Your task to perform on an android device: check storage Image 0: 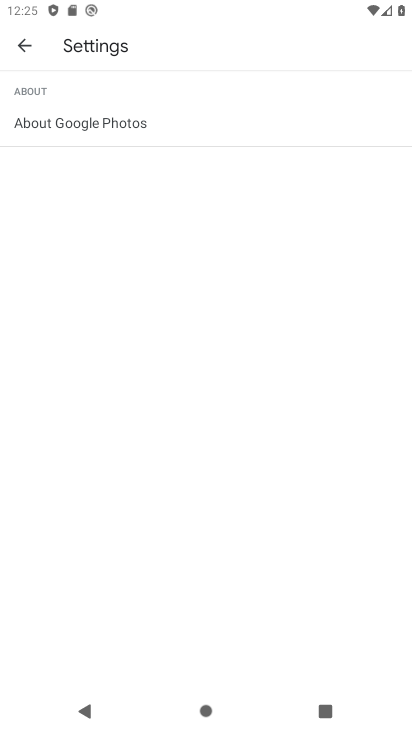
Step 0: press home button
Your task to perform on an android device: check storage Image 1: 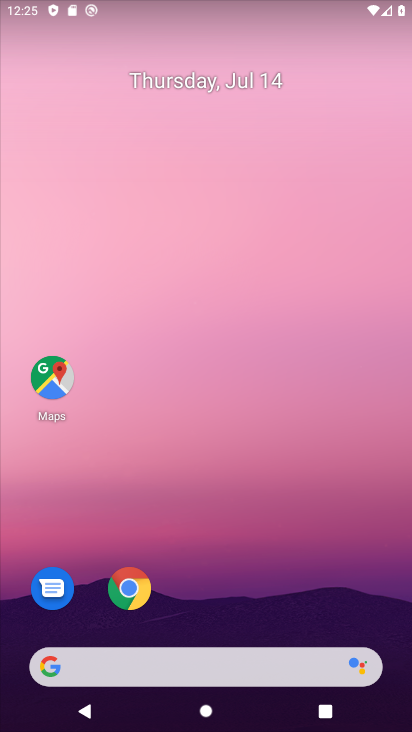
Step 1: drag from (211, 668) to (273, 136)
Your task to perform on an android device: check storage Image 2: 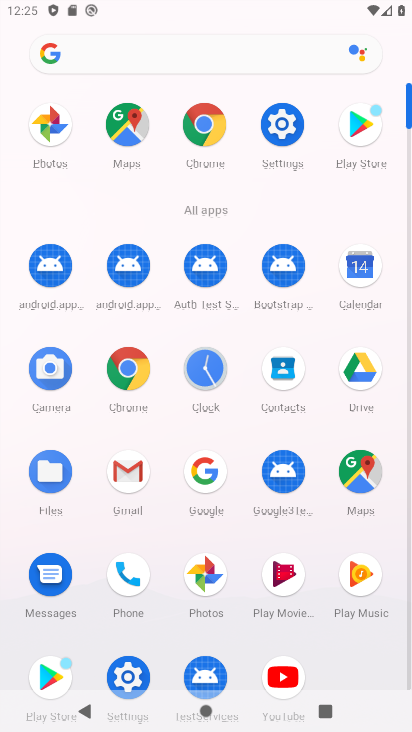
Step 2: click (279, 126)
Your task to perform on an android device: check storage Image 3: 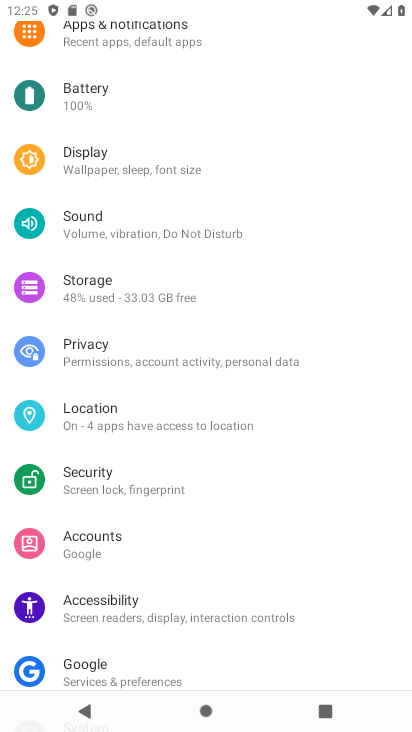
Step 3: click (112, 281)
Your task to perform on an android device: check storage Image 4: 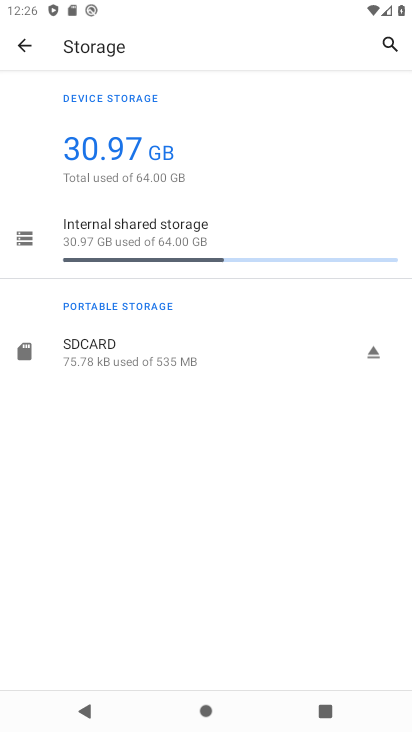
Step 4: task complete